Your task to perform on an android device: Go to Reddit.com Image 0: 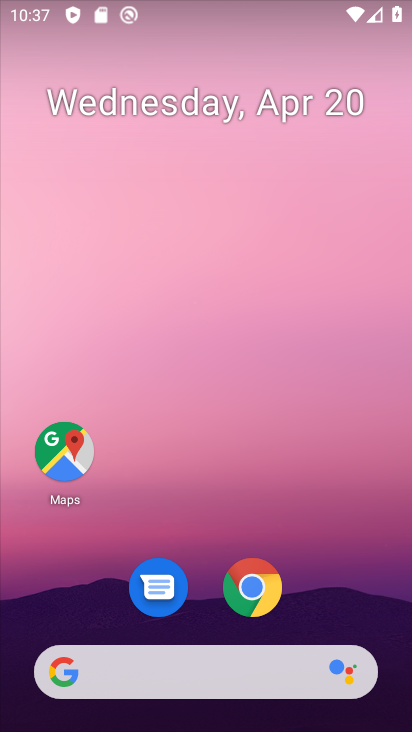
Step 0: drag from (390, 538) to (277, 36)
Your task to perform on an android device: Go to Reddit.com Image 1: 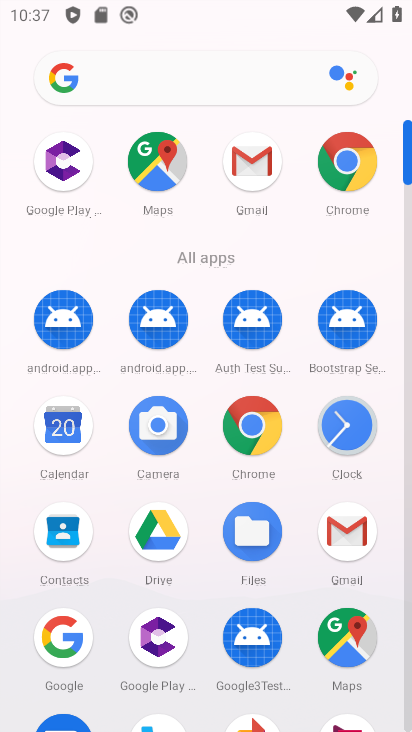
Step 1: drag from (9, 514) to (10, 244)
Your task to perform on an android device: Go to Reddit.com Image 2: 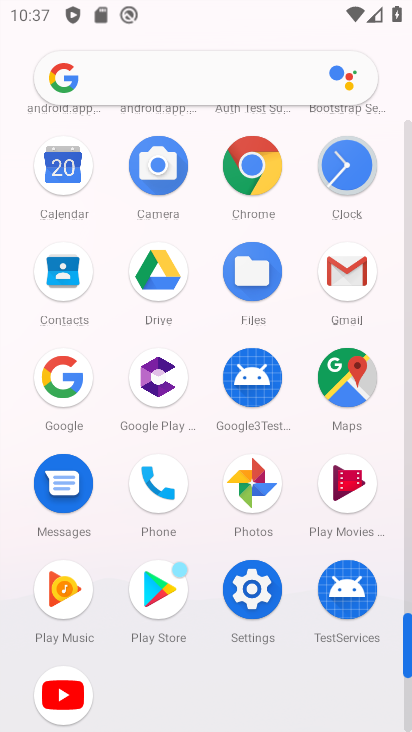
Step 2: click (246, 166)
Your task to perform on an android device: Go to Reddit.com Image 3: 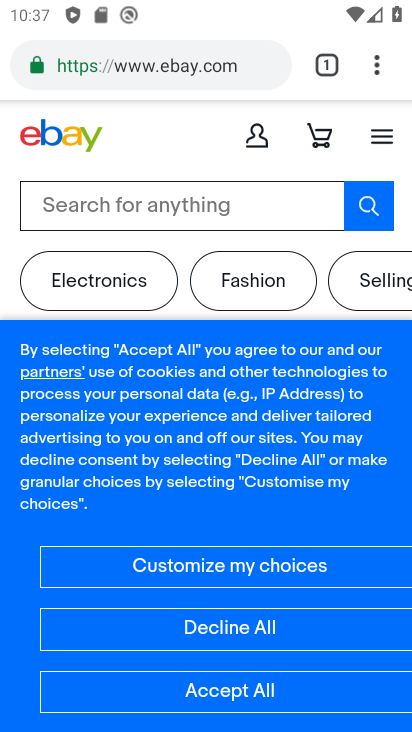
Step 3: click (209, 67)
Your task to perform on an android device: Go to Reddit.com Image 4: 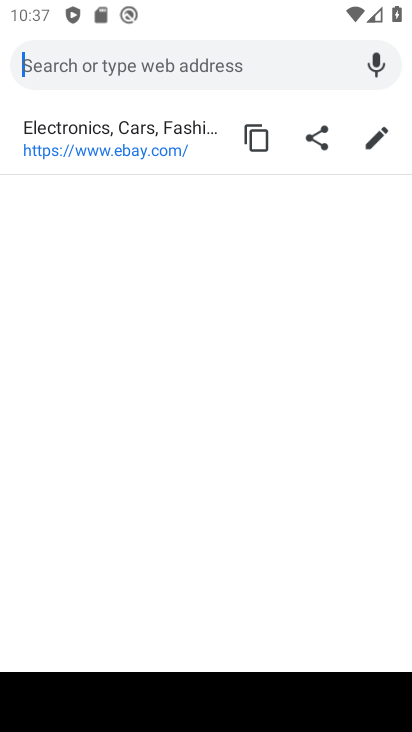
Step 4: type " Reddit.com"
Your task to perform on an android device: Go to Reddit.com Image 5: 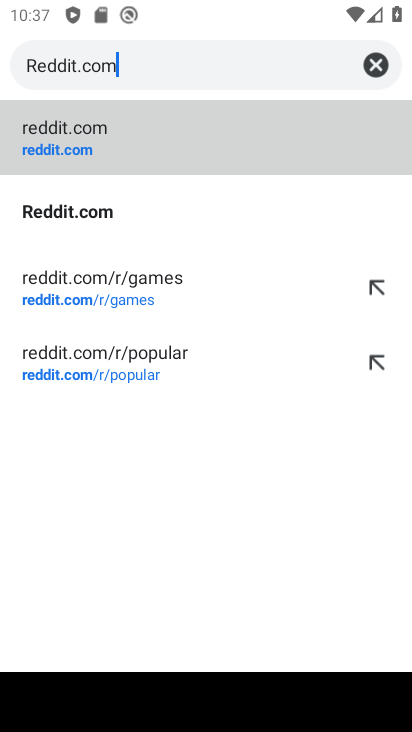
Step 5: click (133, 143)
Your task to perform on an android device: Go to Reddit.com Image 6: 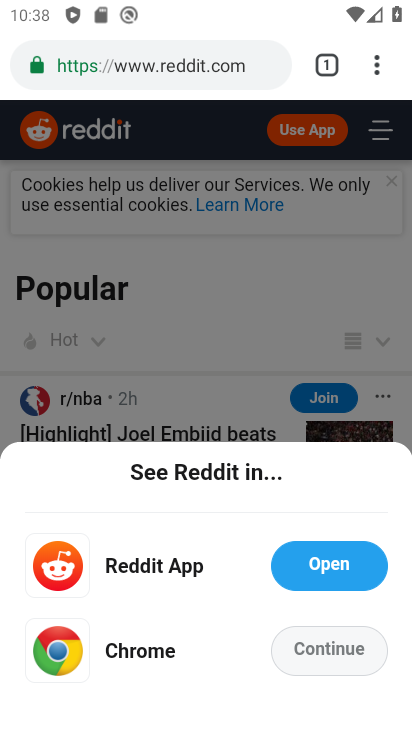
Step 6: task complete